Your task to perform on an android device: Go to CNN.com Image 0: 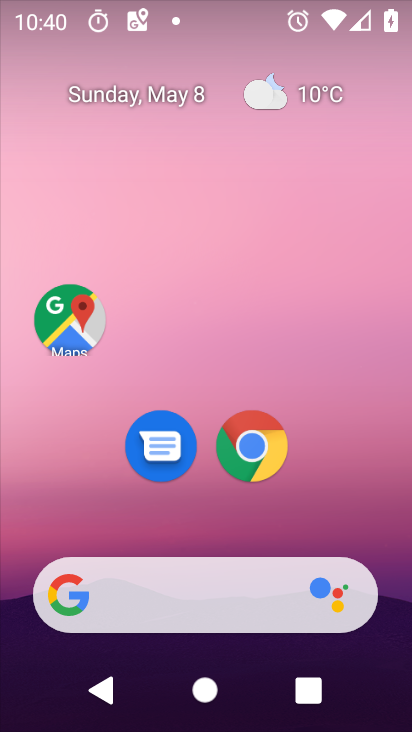
Step 0: click (256, 446)
Your task to perform on an android device: Go to CNN.com Image 1: 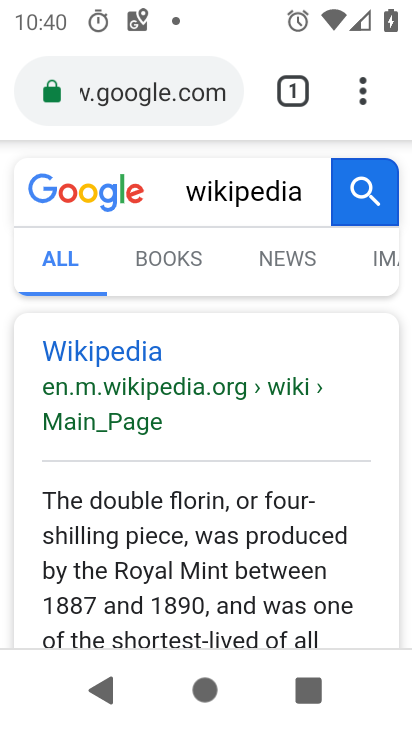
Step 1: click (94, 98)
Your task to perform on an android device: Go to CNN.com Image 2: 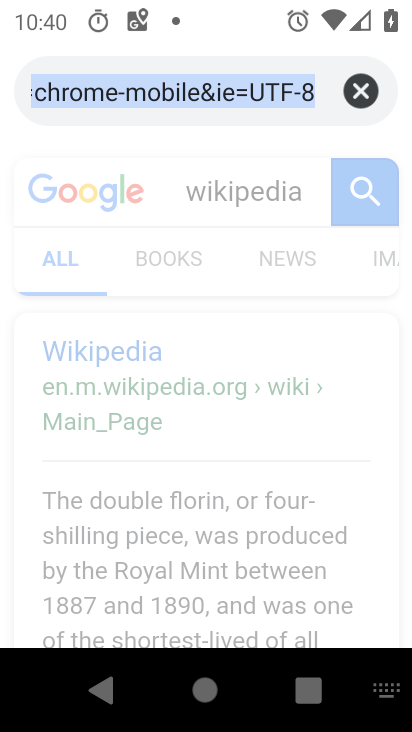
Step 2: click (360, 87)
Your task to perform on an android device: Go to CNN.com Image 3: 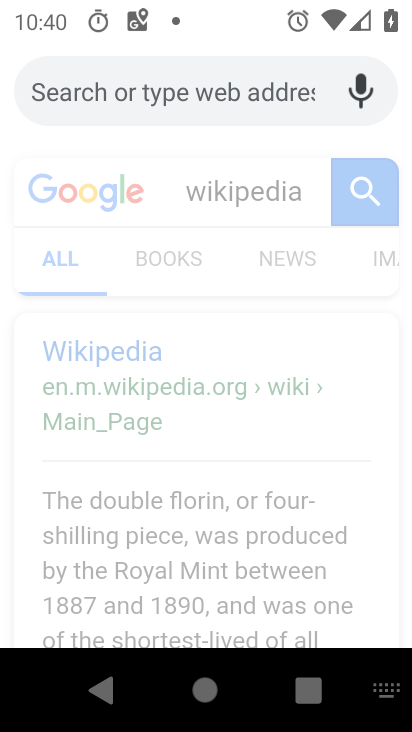
Step 3: type "cnn.com"
Your task to perform on an android device: Go to CNN.com Image 4: 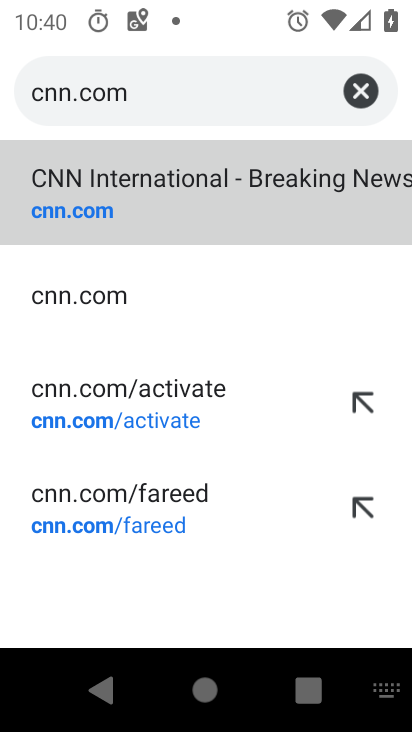
Step 4: click (106, 294)
Your task to perform on an android device: Go to CNN.com Image 5: 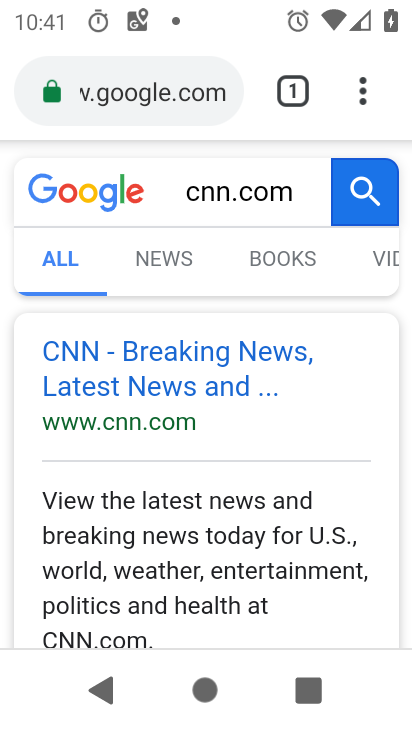
Step 5: click (89, 354)
Your task to perform on an android device: Go to CNN.com Image 6: 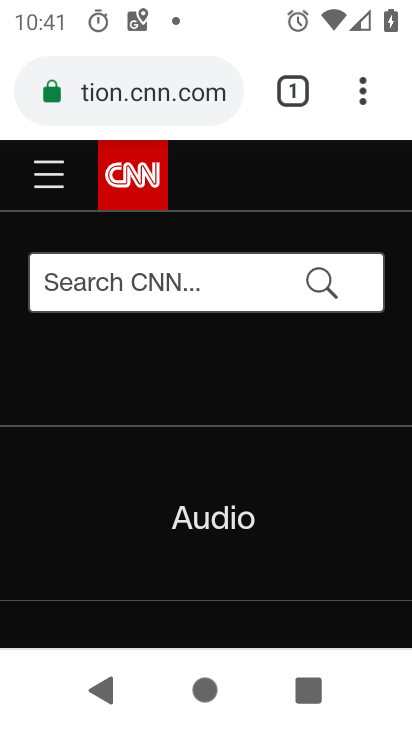
Step 6: task complete